Your task to perform on an android device: Go to battery settings Image 0: 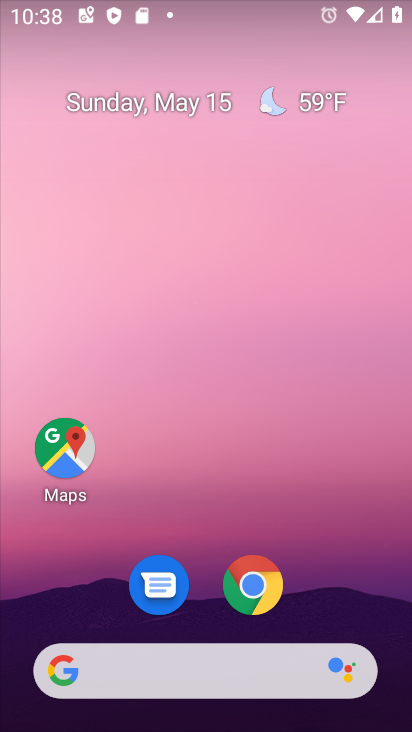
Step 0: drag from (240, 509) to (259, 55)
Your task to perform on an android device: Go to battery settings Image 1: 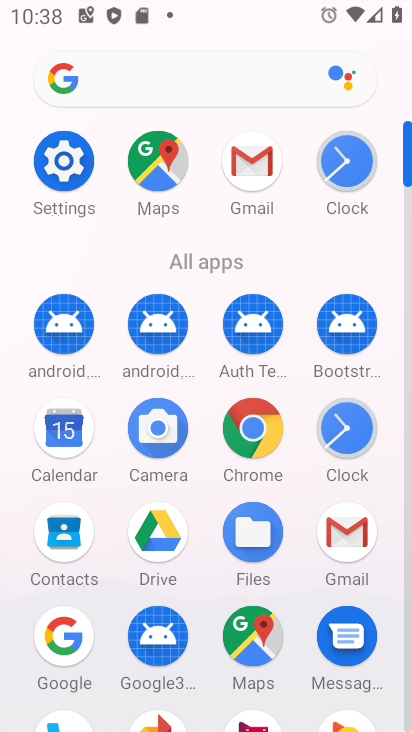
Step 1: click (80, 159)
Your task to perform on an android device: Go to battery settings Image 2: 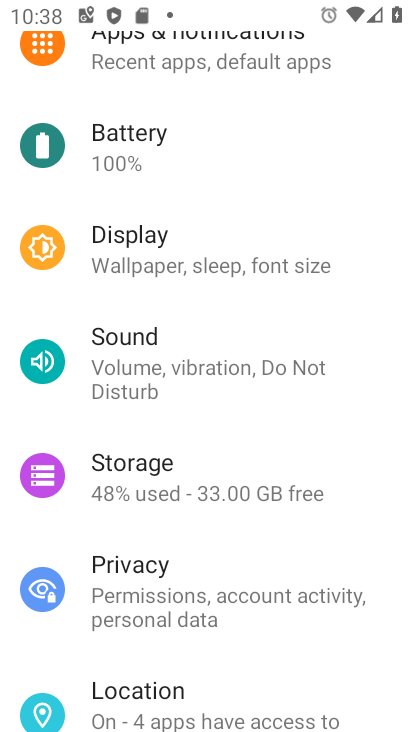
Step 2: click (214, 142)
Your task to perform on an android device: Go to battery settings Image 3: 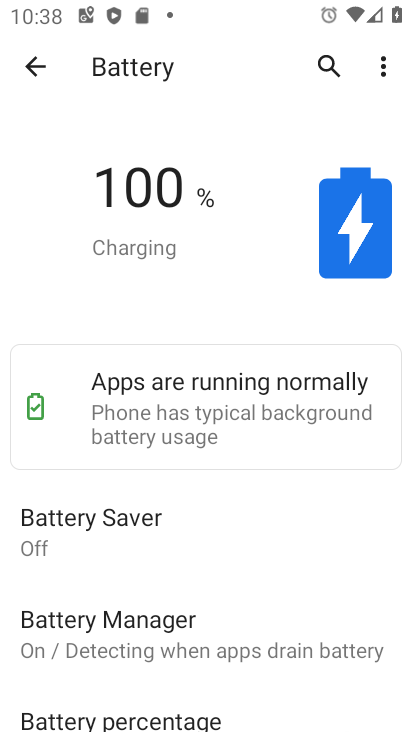
Step 3: task complete